Your task to perform on an android device: check the backup settings in the google photos Image 0: 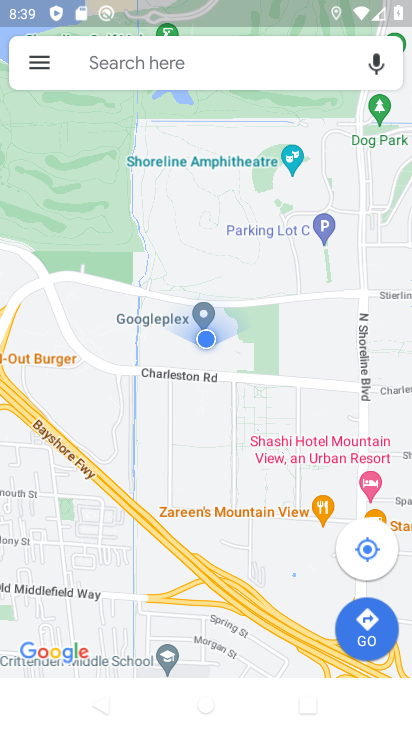
Step 0: press home button
Your task to perform on an android device: check the backup settings in the google photos Image 1: 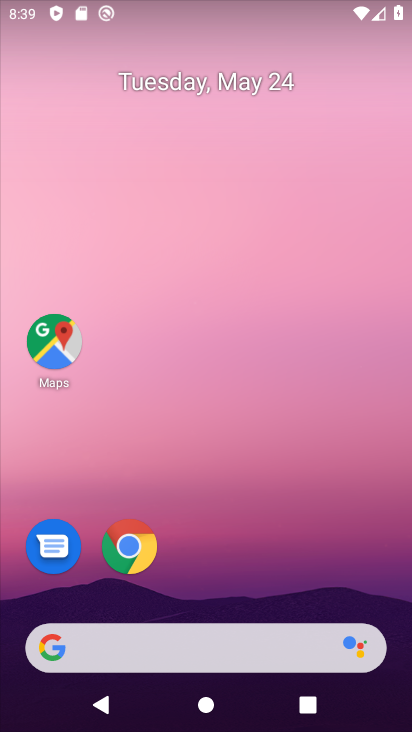
Step 1: drag from (180, 612) to (175, 71)
Your task to perform on an android device: check the backup settings in the google photos Image 2: 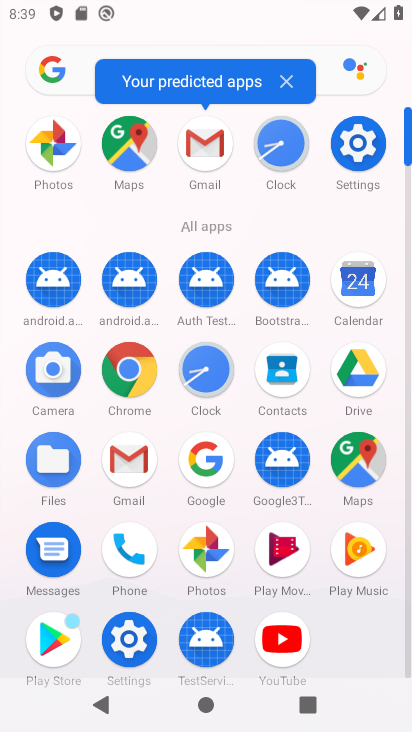
Step 2: click (202, 539)
Your task to perform on an android device: check the backup settings in the google photos Image 3: 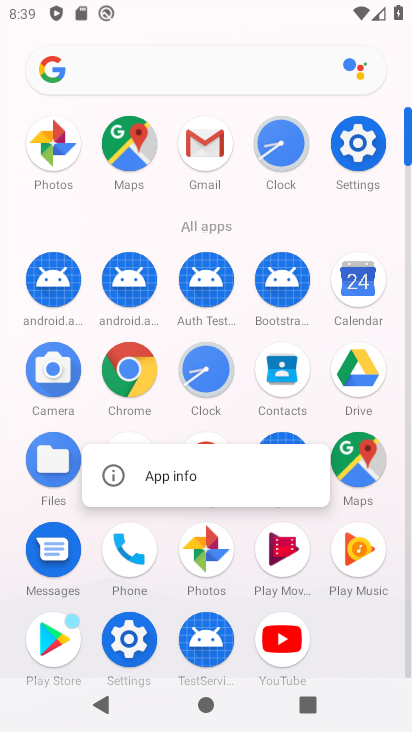
Step 3: click (204, 548)
Your task to perform on an android device: check the backup settings in the google photos Image 4: 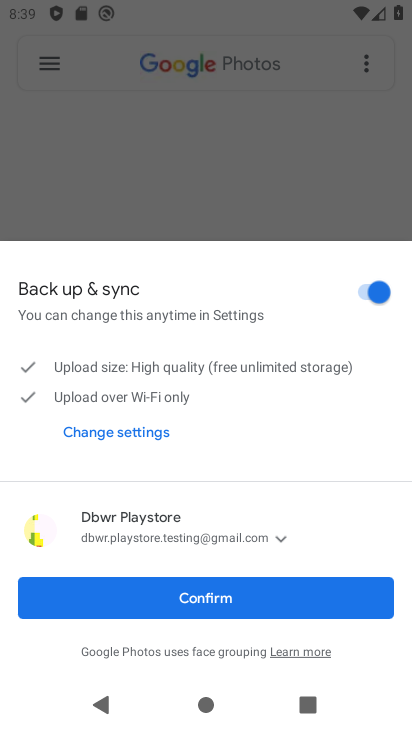
Step 4: click (192, 605)
Your task to perform on an android device: check the backup settings in the google photos Image 5: 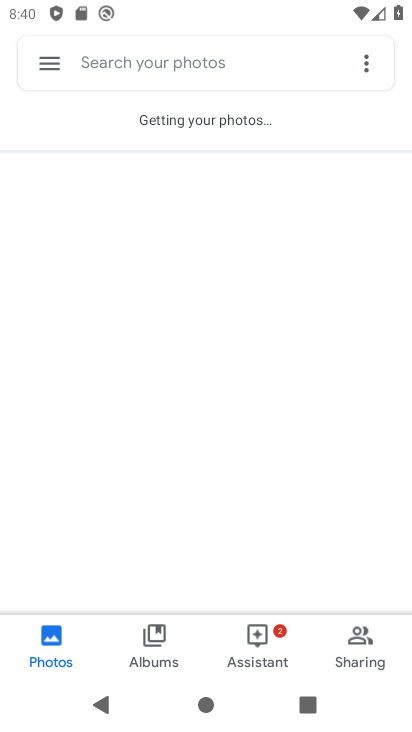
Step 5: task complete